Your task to perform on an android device: turn notification dots on Image 0: 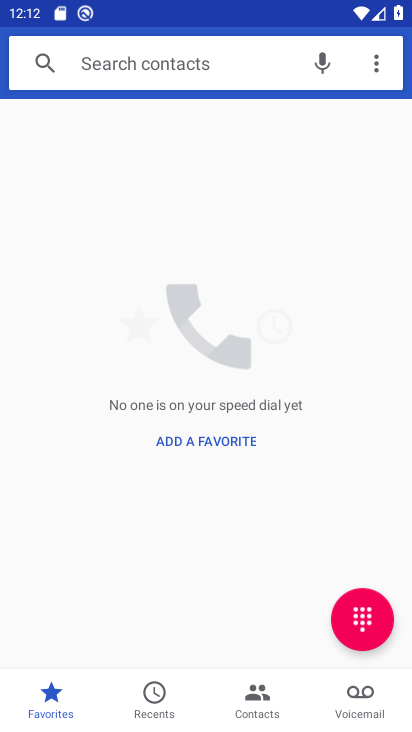
Step 0: press home button
Your task to perform on an android device: turn notification dots on Image 1: 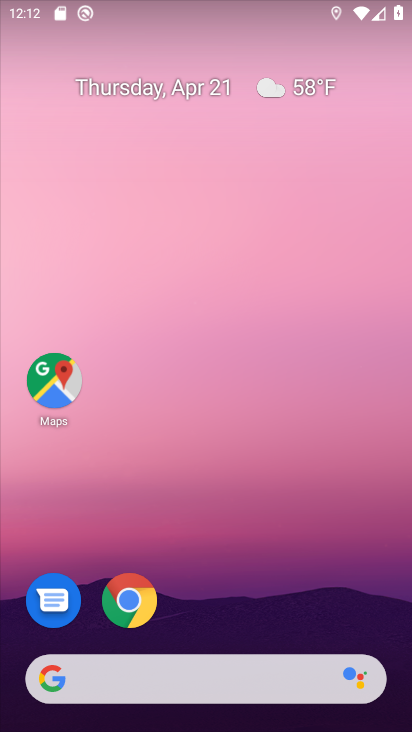
Step 1: drag from (266, 563) to (314, 130)
Your task to perform on an android device: turn notification dots on Image 2: 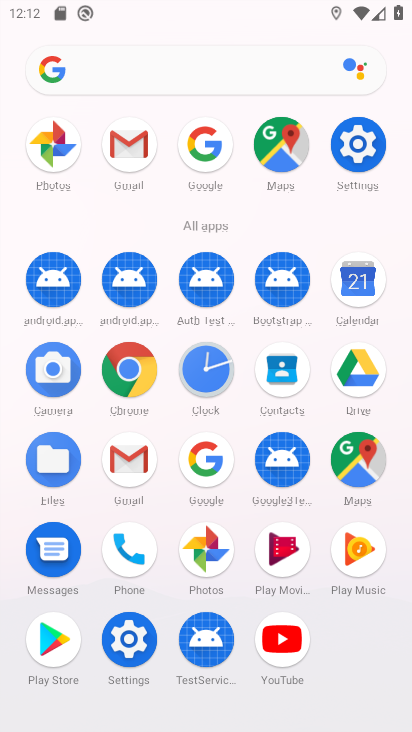
Step 2: click (364, 154)
Your task to perform on an android device: turn notification dots on Image 3: 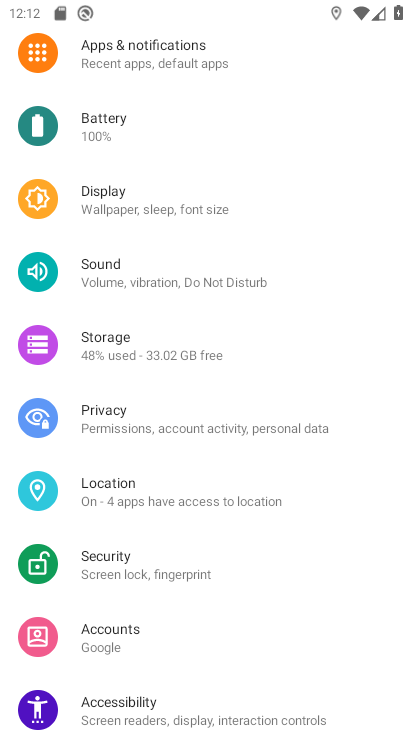
Step 3: click (151, 52)
Your task to perform on an android device: turn notification dots on Image 4: 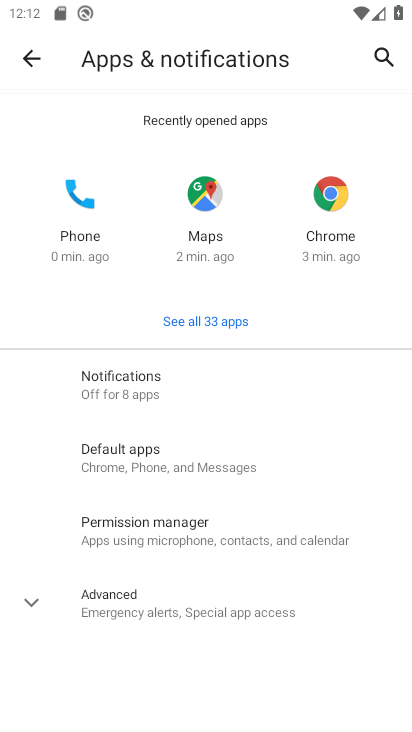
Step 4: click (147, 385)
Your task to perform on an android device: turn notification dots on Image 5: 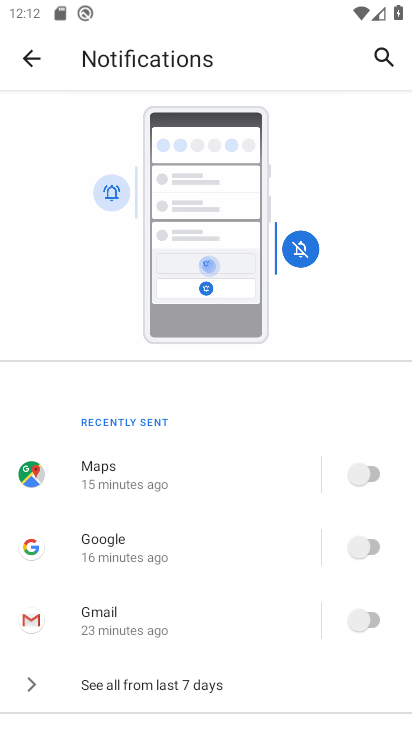
Step 5: drag from (228, 639) to (273, 156)
Your task to perform on an android device: turn notification dots on Image 6: 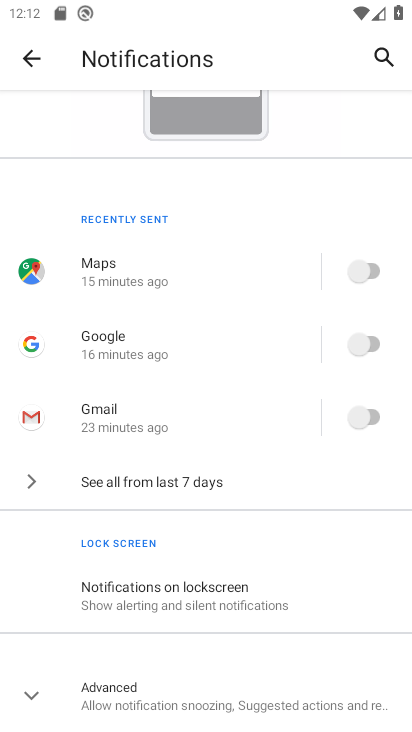
Step 6: click (26, 691)
Your task to perform on an android device: turn notification dots on Image 7: 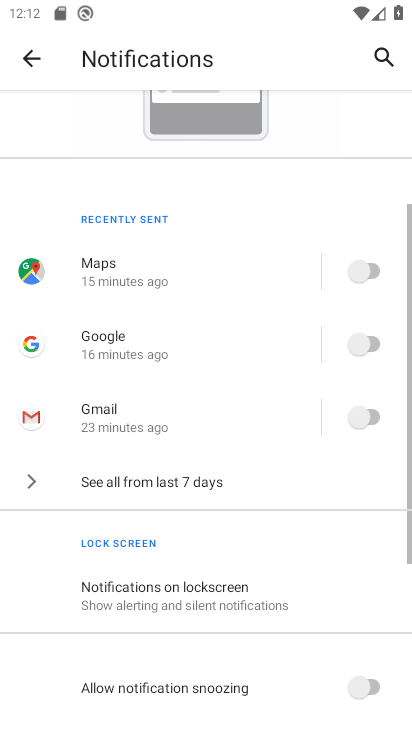
Step 7: drag from (220, 605) to (263, 194)
Your task to perform on an android device: turn notification dots on Image 8: 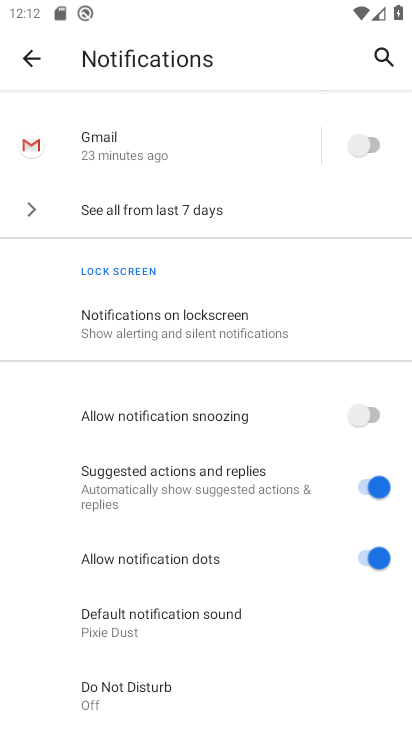
Step 8: click (241, 563)
Your task to perform on an android device: turn notification dots on Image 9: 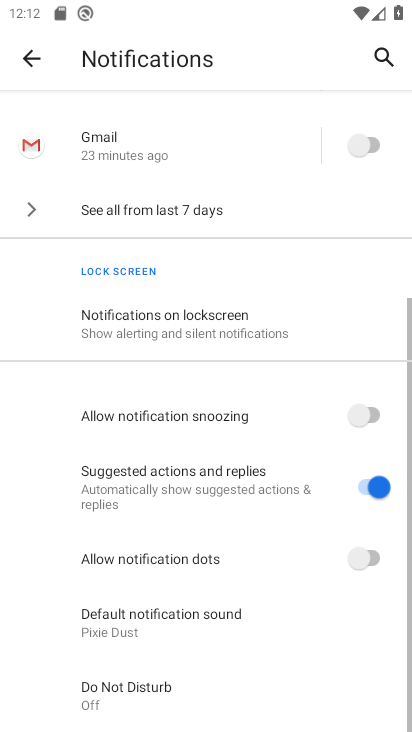
Step 9: click (241, 564)
Your task to perform on an android device: turn notification dots on Image 10: 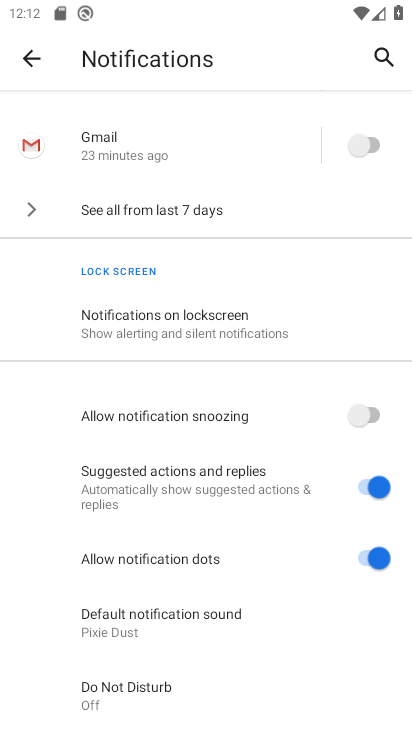
Step 10: task complete